Your task to perform on an android device: Go to calendar. Show me events next week Image 0: 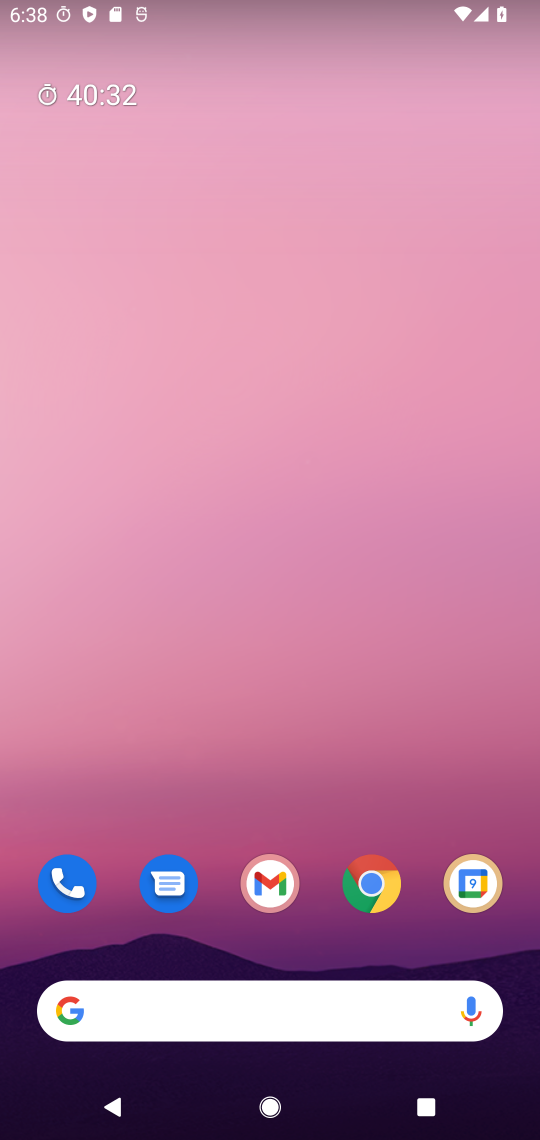
Step 0: drag from (294, 803) to (300, 60)
Your task to perform on an android device: Go to calendar. Show me events next week Image 1: 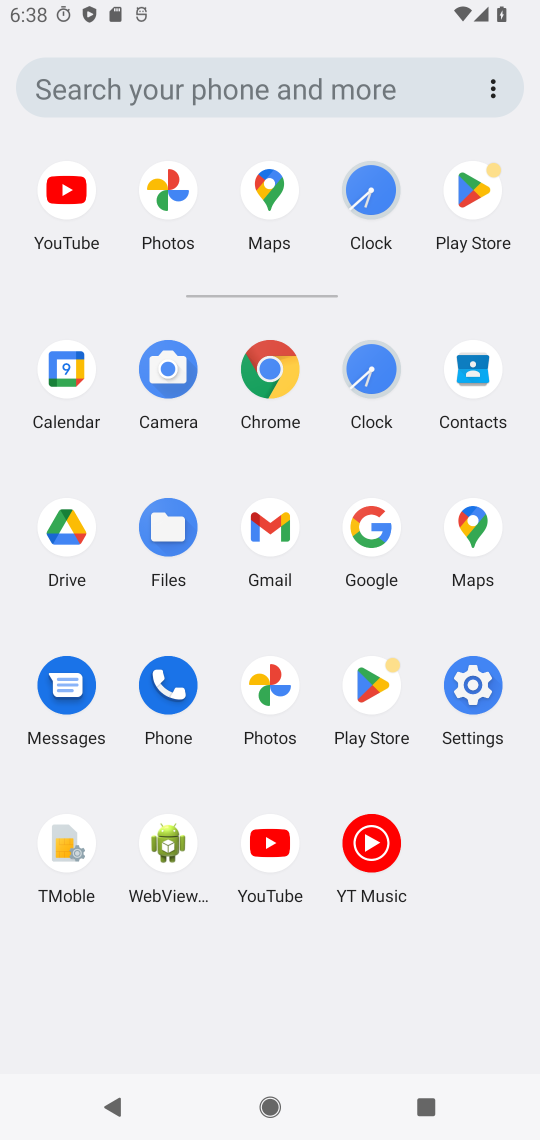
Step 1: click (68, 372)
Your task to perform on an android device: Go to calendar. Show me events next week Image 2: 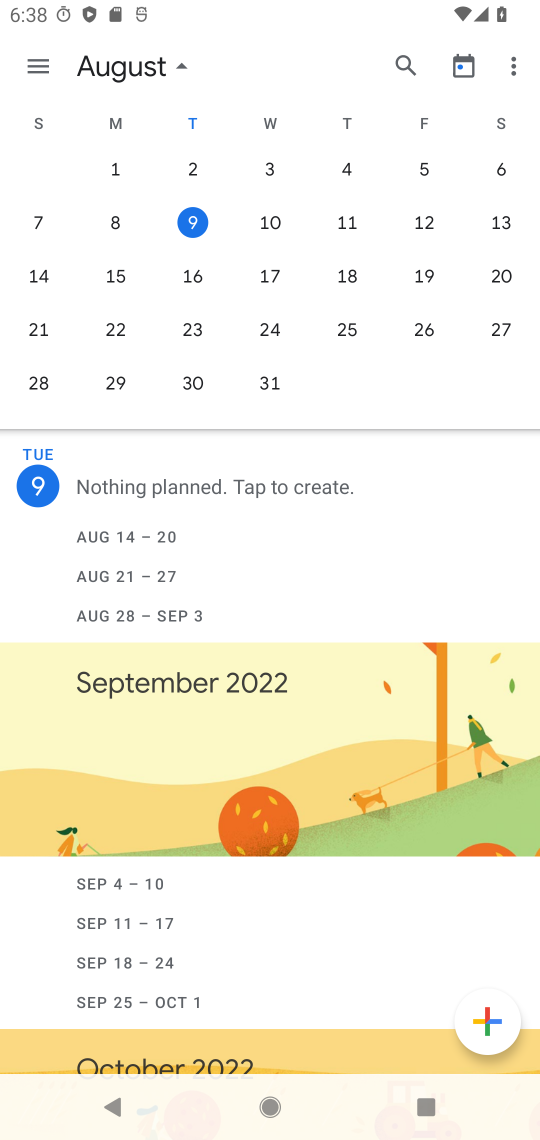
Step 2: click (53, 279)
Your task to perform on an android device: Go to calendar. Show me events next week Image 3: 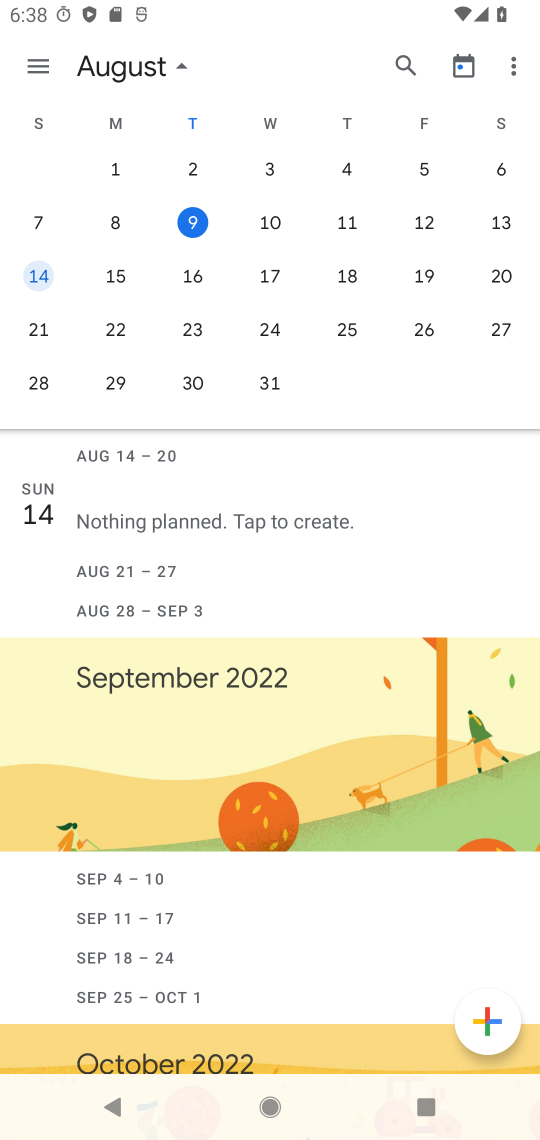
Step 3: click (110, 287)
Your task to perform on an android device: Go to calendar. Show me events next week Image 4: 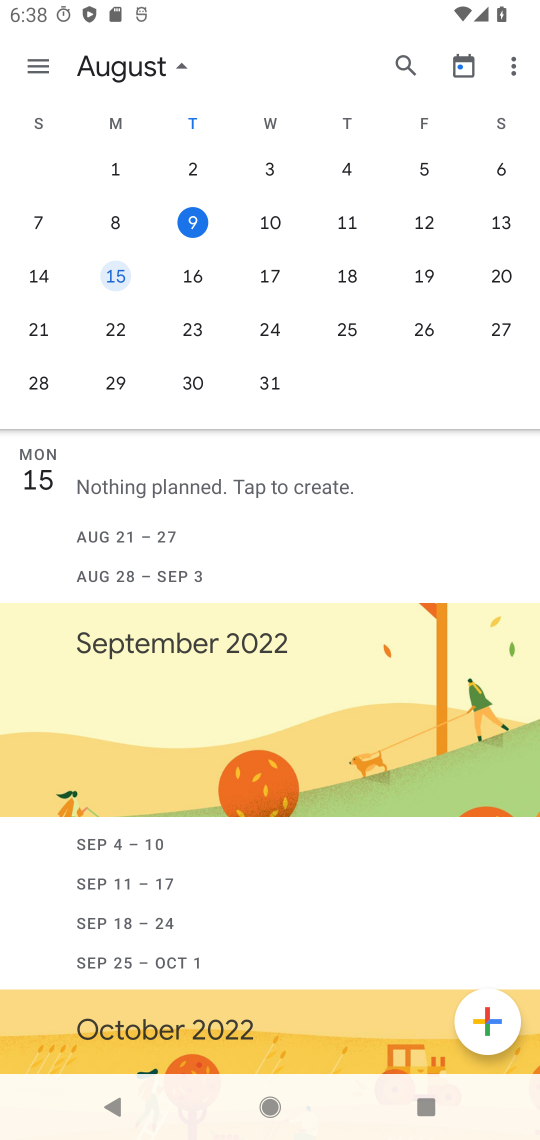
Step 4: task complete